Your task to perform on an android device: turn on location history Image 0: 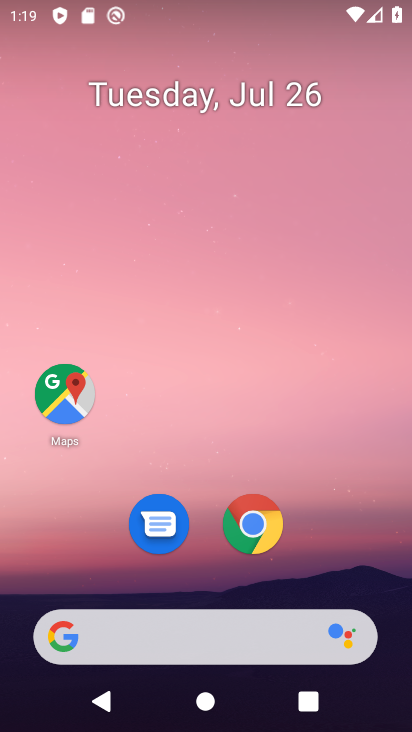
Step 0: click (70, 392)
Your task to perform on an android device: turn on location history Image 1: 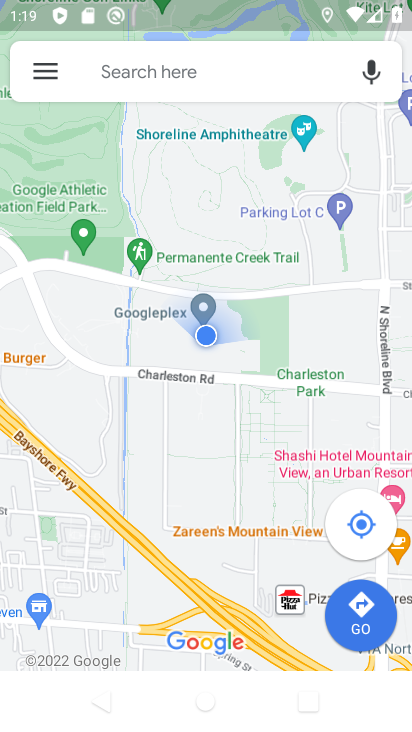
Step 1: click (45, 73)
Your task to perform on an android device: turn on location history Image 2: 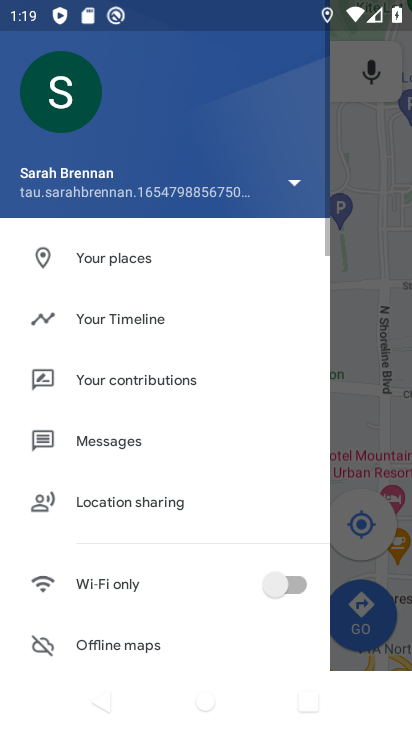
Step 2: click (127, 312)
Your task to perform on an android device: turn on location history Image 3: 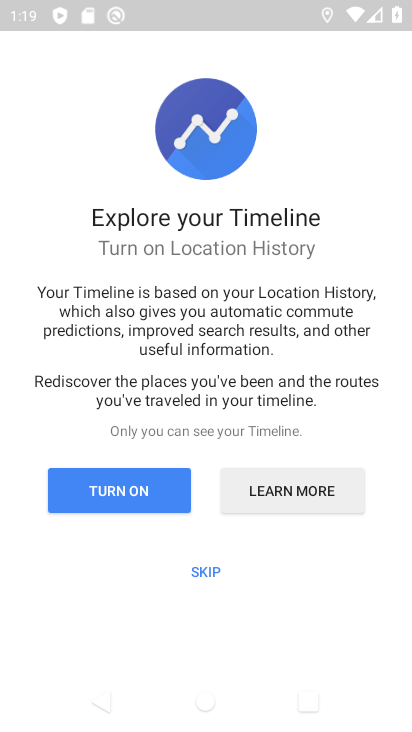
Step 3: click (207, 575)
Your task to perform on an android device: turn on location history Image 4: 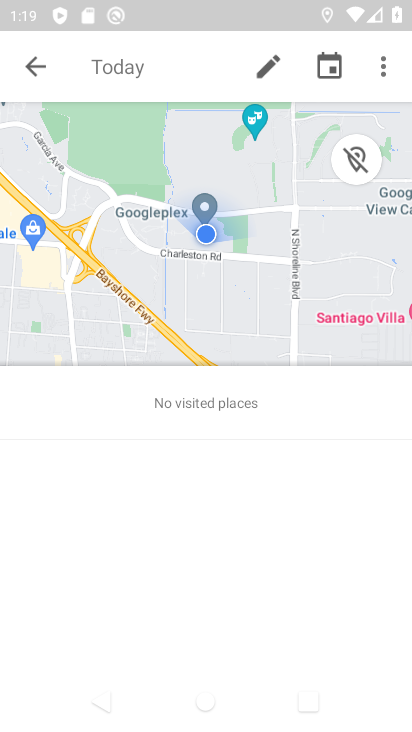
Step 4: click (381, 76)
Your task to perform on an android device: turn on location history Image 5: 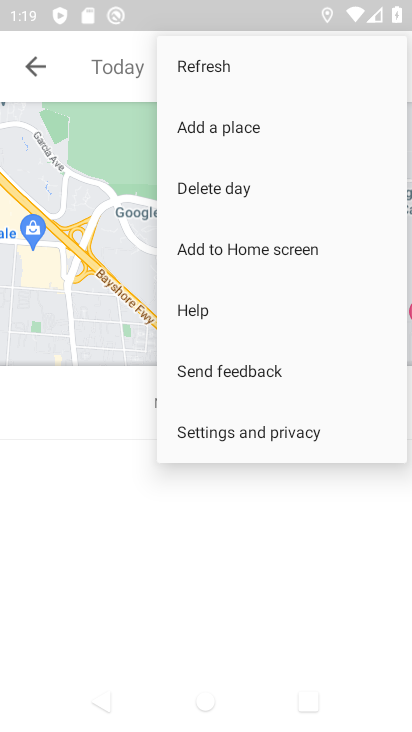
Step 5: click (237, 437)
Your task to perform on an android device: turn on location history Image 6: 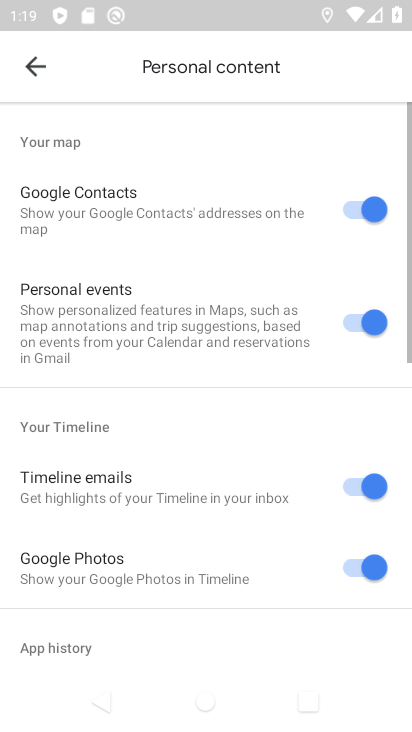
Step 6: drag from (209, 605) to (341, 108)
Your task to perform on an android device: turn on location history Image 7: 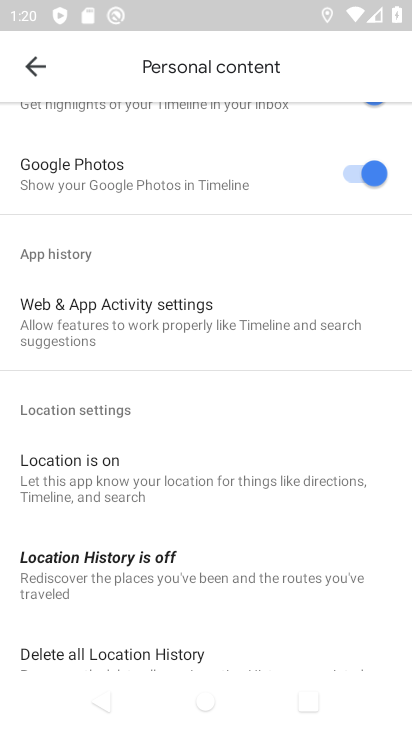
Step 7: click (171, 573)
Your task to perform on an android device: turn on location history Image 8: 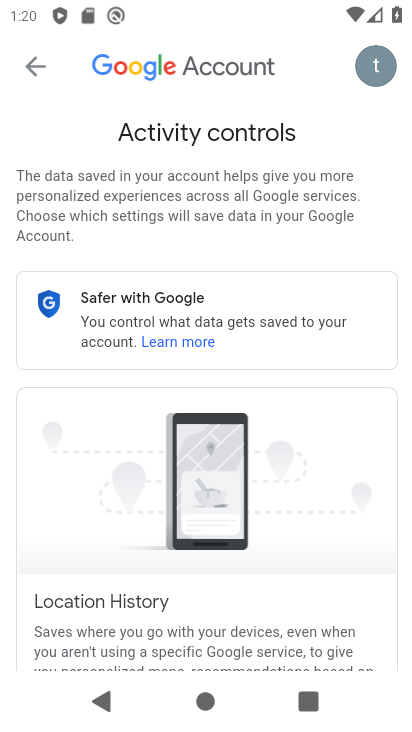
Step 8: drag from (120, 558) to (305, 140)
Your task to perform on an android device: turn on location history Image 9: 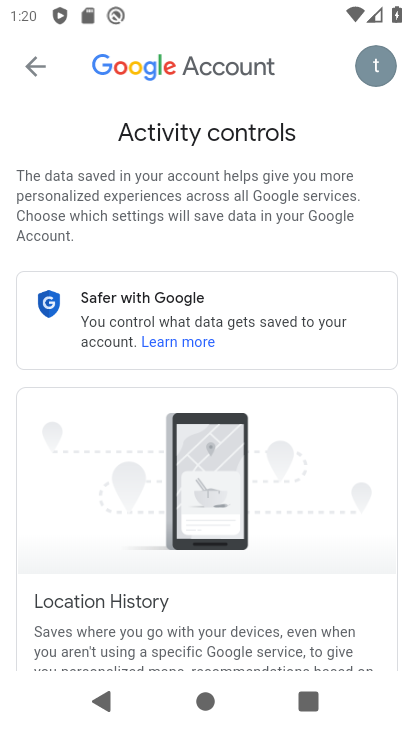
Step 9: drag from (283, 595) to (383, 243)
Your task to perform on an android device: turn on location history Image 10: 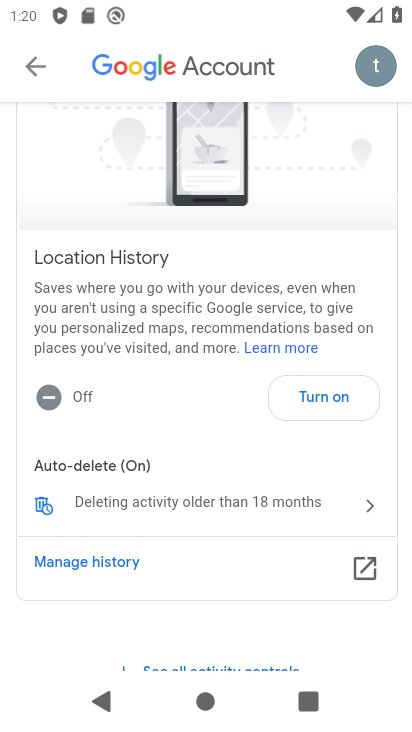
Step 10: click (337, 399)
Your task to perform on an android device: turn on location history Image 11: 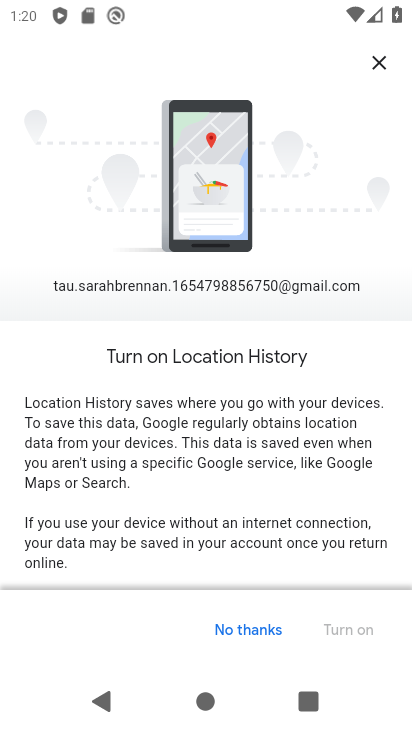
Step 11: drag from (295, 543) to (350, 162)
Your task to perform on an android device: turn on location history Image 12: 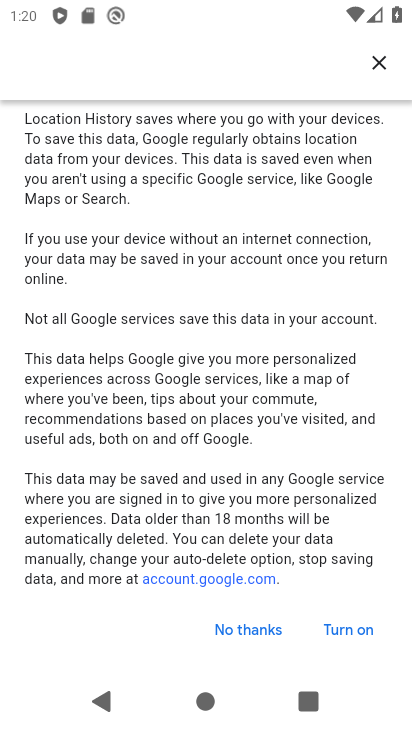
Step 12: click (342, 629)
Your task to perform on an android device: turn on location history Image 13: 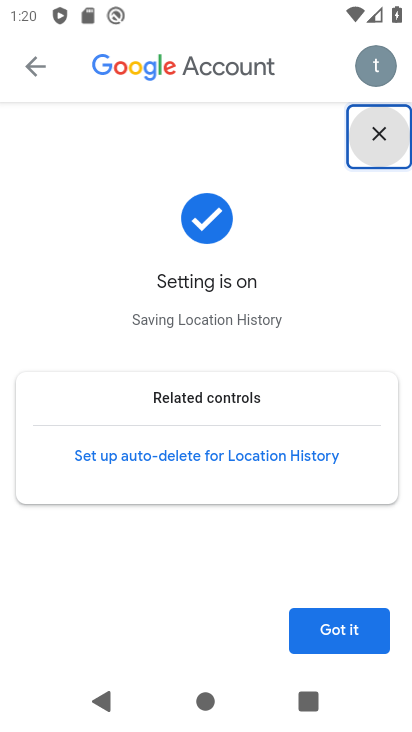
Step 13: click (342, 629)
Your task to perform on an android device: turn on location history Image 14: 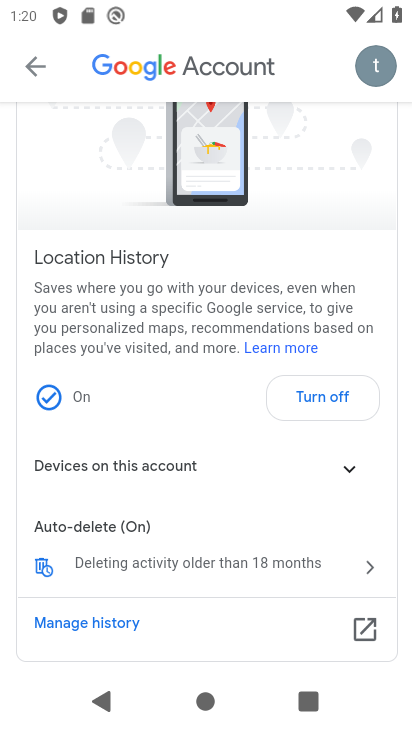
Step 14: task complete